Your task to perform on an android device: Open Amazon Image 0: 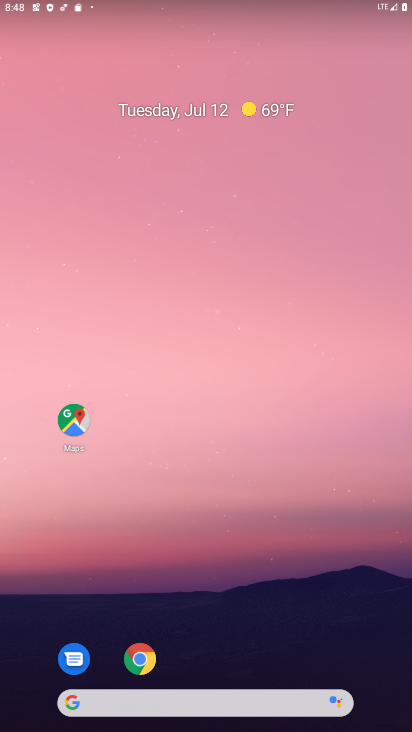
Step 0: drag from (194, 721) to (170, 209)
Your task to perform on an android device: Open Amazon Image 1: 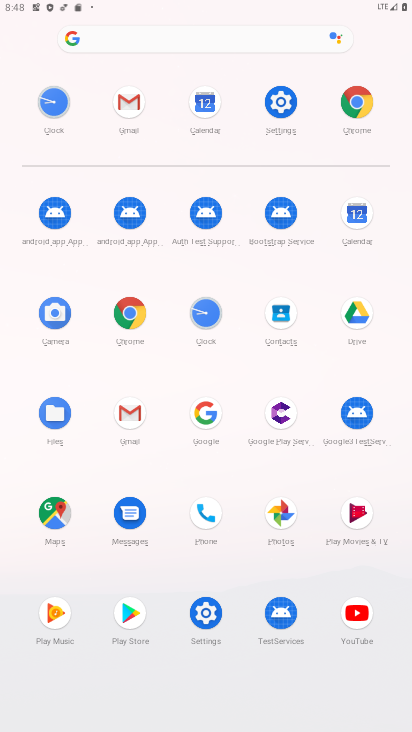
Step 1: click (352, 100)
Your task to perform on an android device: Open Amazon Image 2: 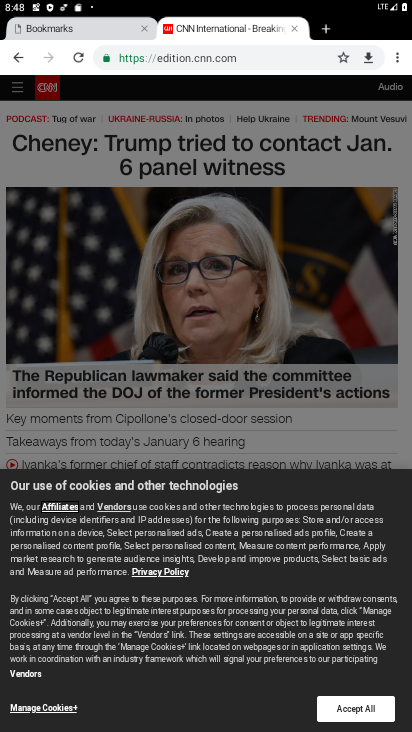
Step 2: click (393, 62)
Your task to perform on an android device: Open Amazon Image 3: 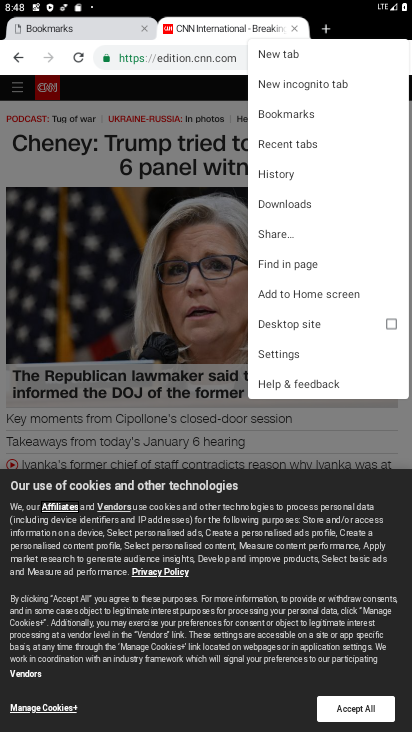
Step 3: click (292, 55)
Your task to perform on an android device: Open Amazon Image 4: 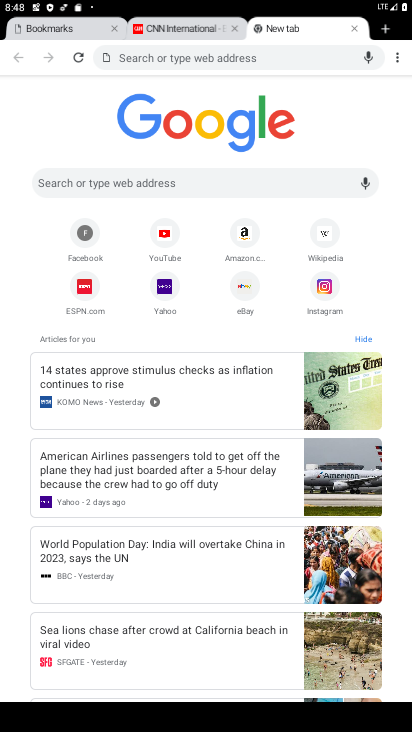
Step 4: click (248, 231)
Your task to perform on an android device: Open Amazon Image 5: 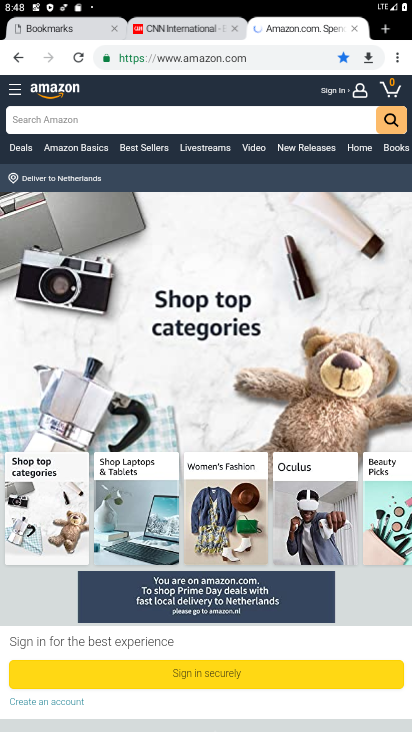
Step 5: task complete